Your task to perform on an android device: Check the weather Image 0: 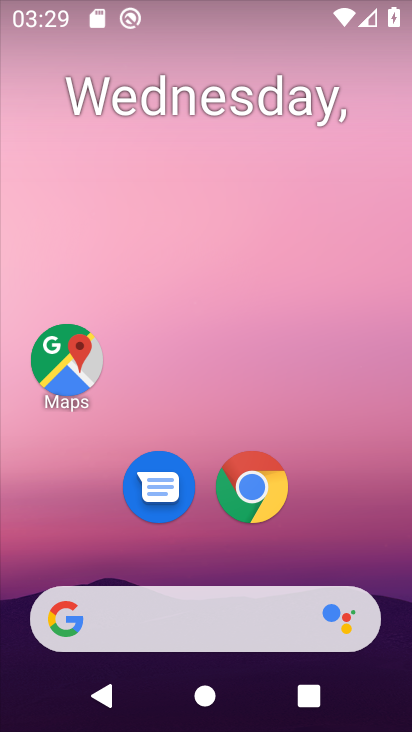
Step 0: drag from (317, 554) to (250, 118)
Your task to perform on an android device: Check the weather Image 1: 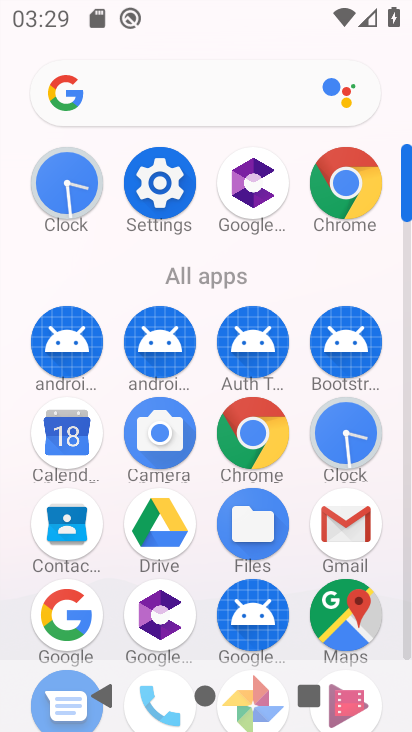
Step 1: drag from (116, 552) to (119, 437)
Your task to perform on an android device: Check the weather Image 2: 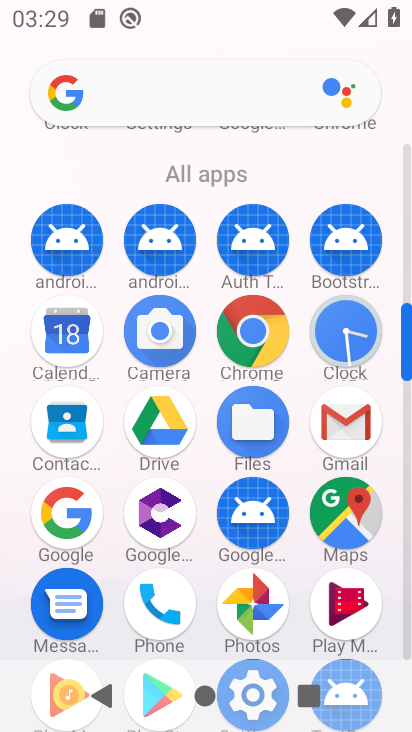
Step 2: click (59, 509)
Your task to perform on an android device: Check the weather Image 3: 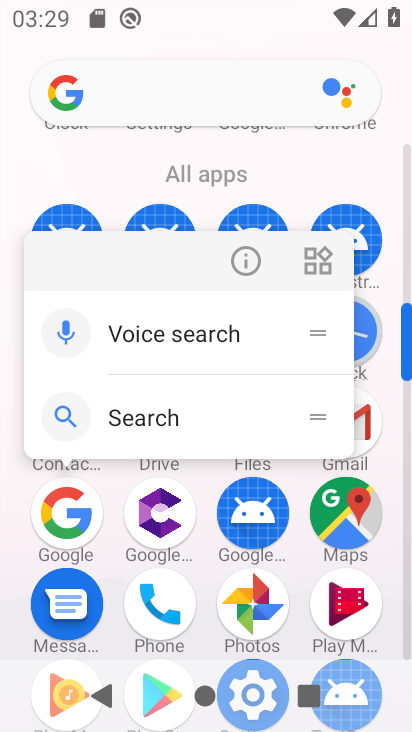
Step 3: click (59, 509)
Your task to perform on an android device: Check the weather Image 4: 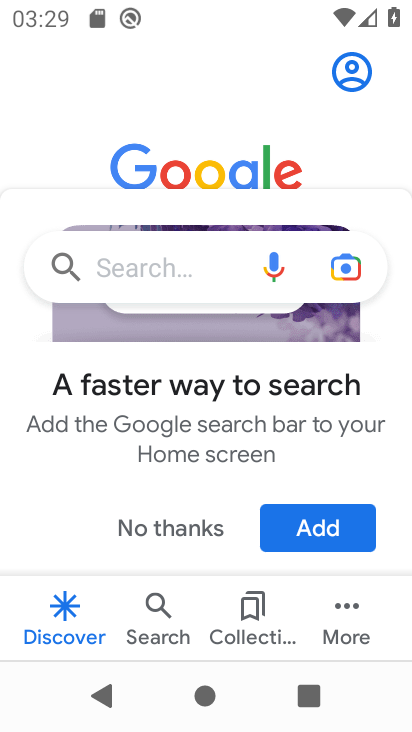
Step 4: click (181, 263)
Your task to perform on an android device: Check the weather Image 5: 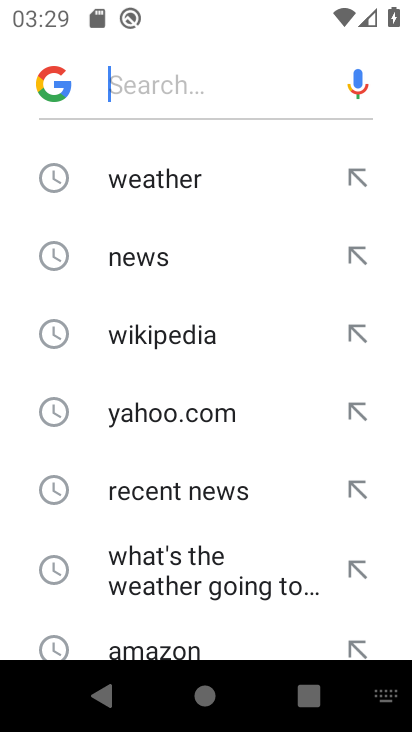
Step 5: click (184, 180)
Your task to perform on an android device: Check the weather Image 6: 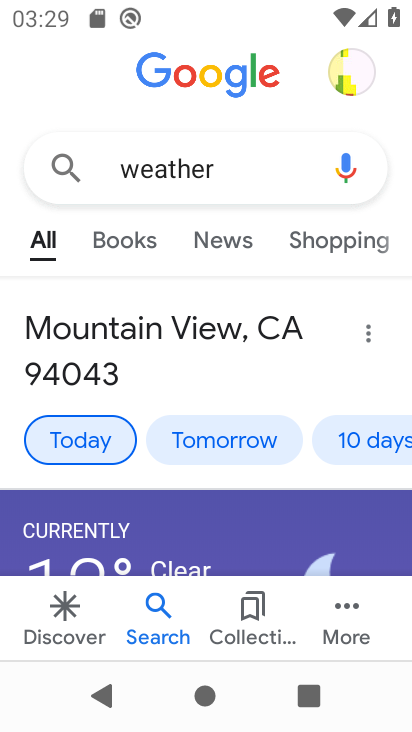
Step 6: task complete